Your task to perform on an android device: Go to location settings Image 0: 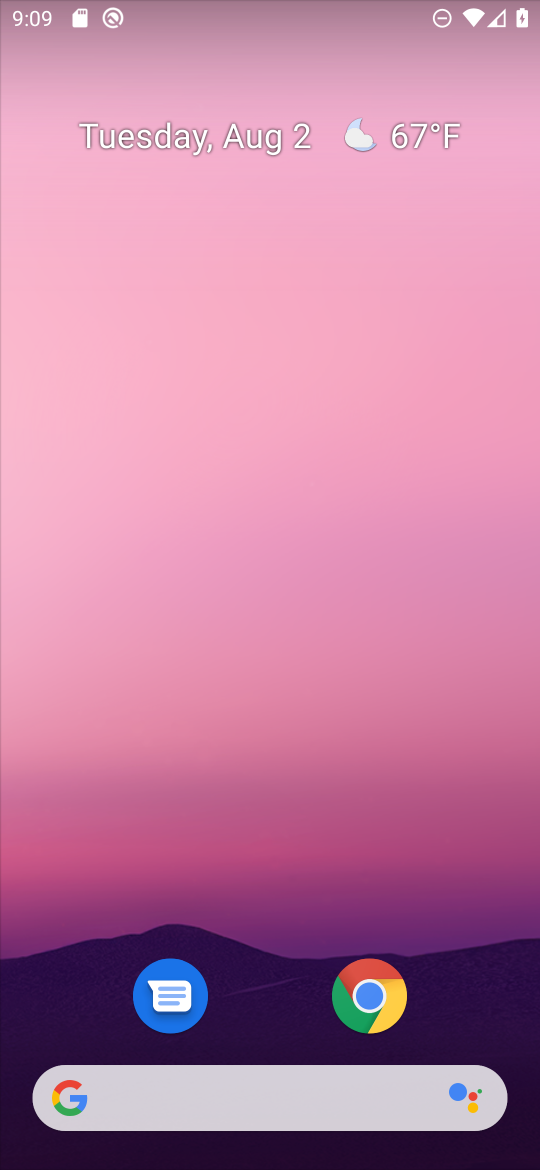
Step 0: press home button
Your task to perform on an android device: Go to location settings Image 1: 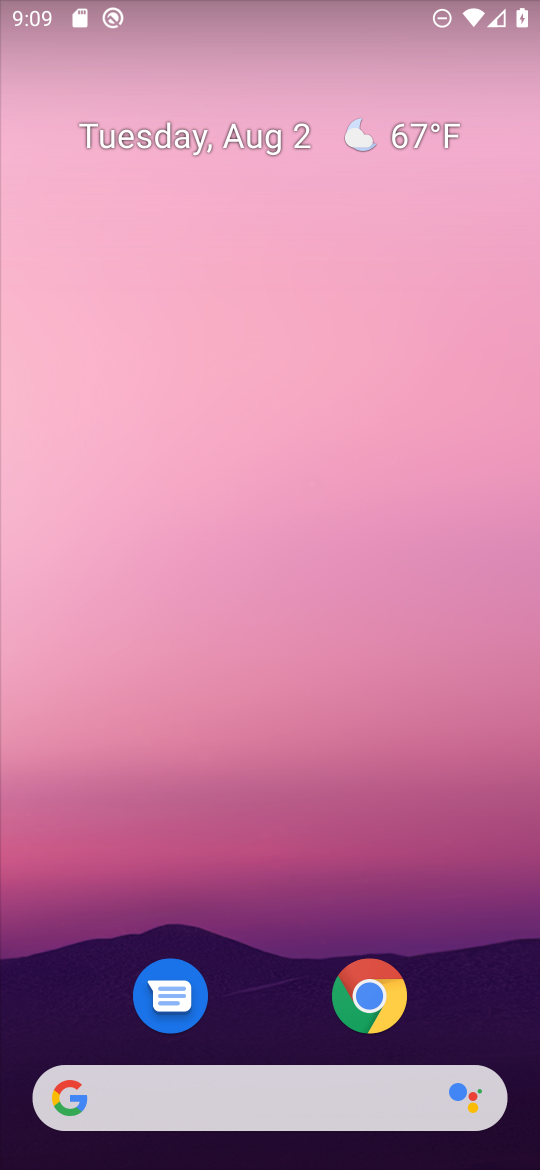
Step 1: drag from (263, 969) to (251, 111)
Your task to perform on an android device: Go to location settings Image 2: 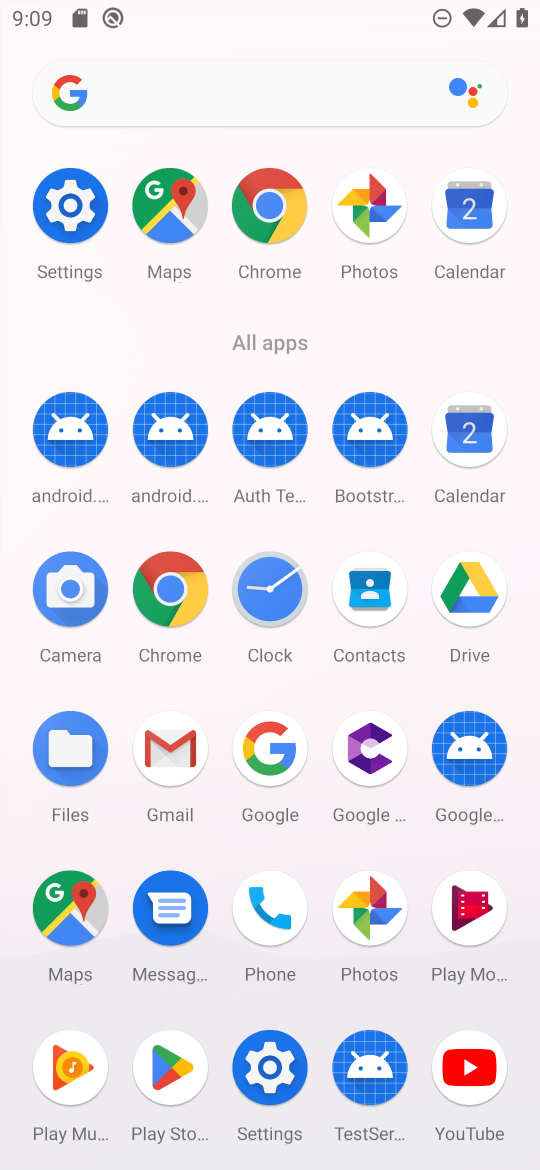
Step 2: click (164, 582)
Your task to perform on an android device: Go to location settings Image 3: 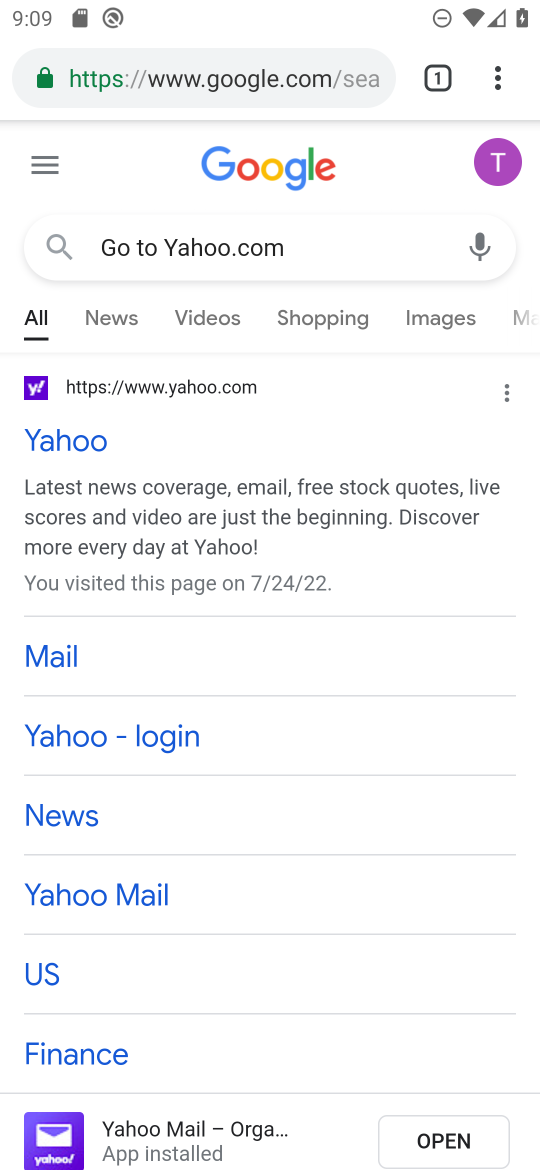
Step 3: press home button
Your task to perform on an android device: Go to location settings Image 4: 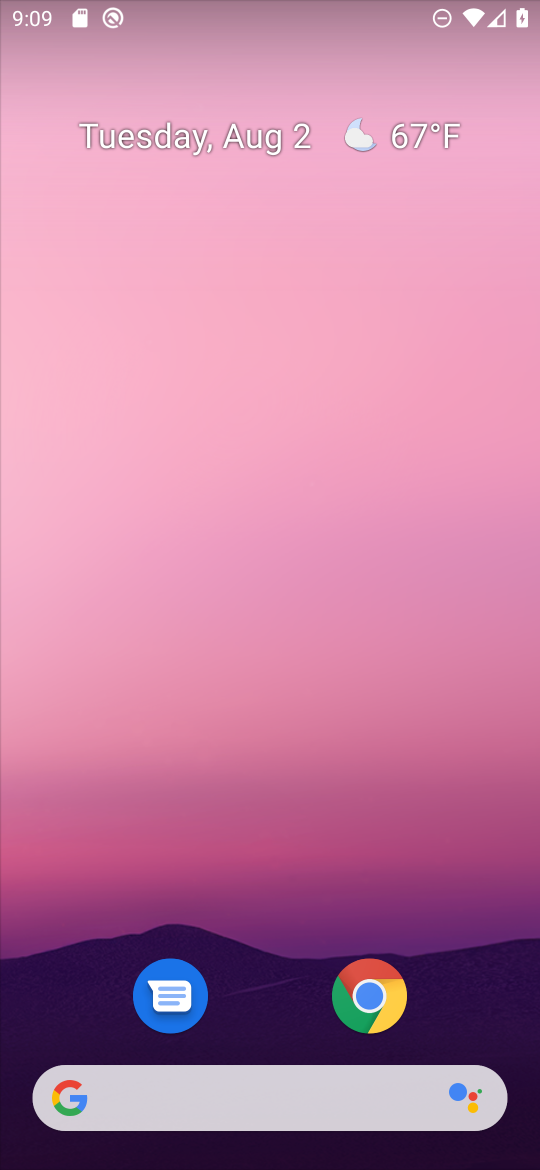
Step 4: drag from (278, 994) to (304, 93)
Your task to perform on an android device: Go to location settings Image 5: 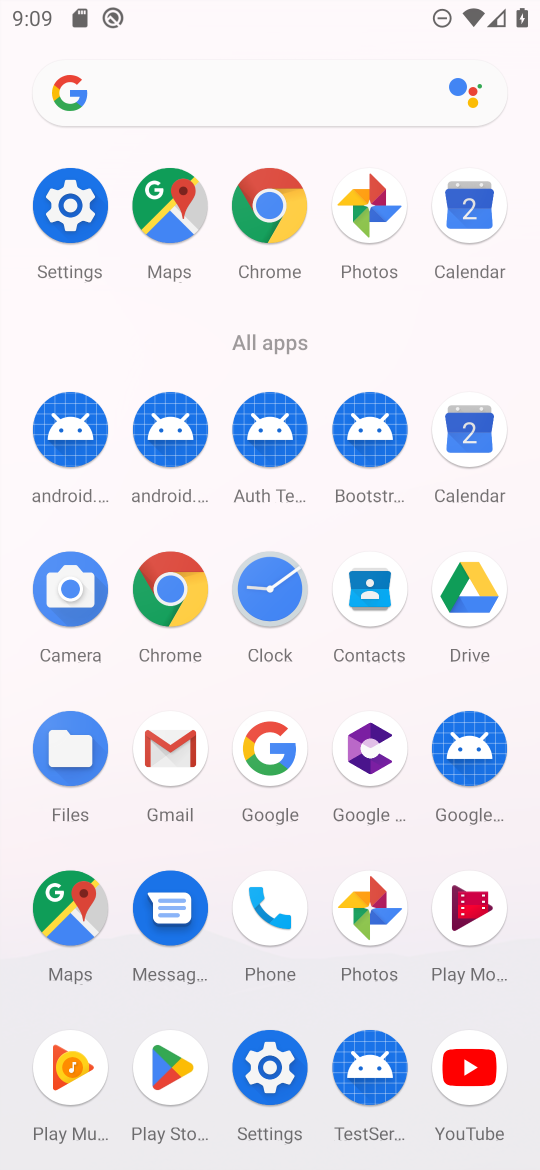
Step 5: click (74, 197)
Your task to perform on an android device: Go to location settings Image 6: 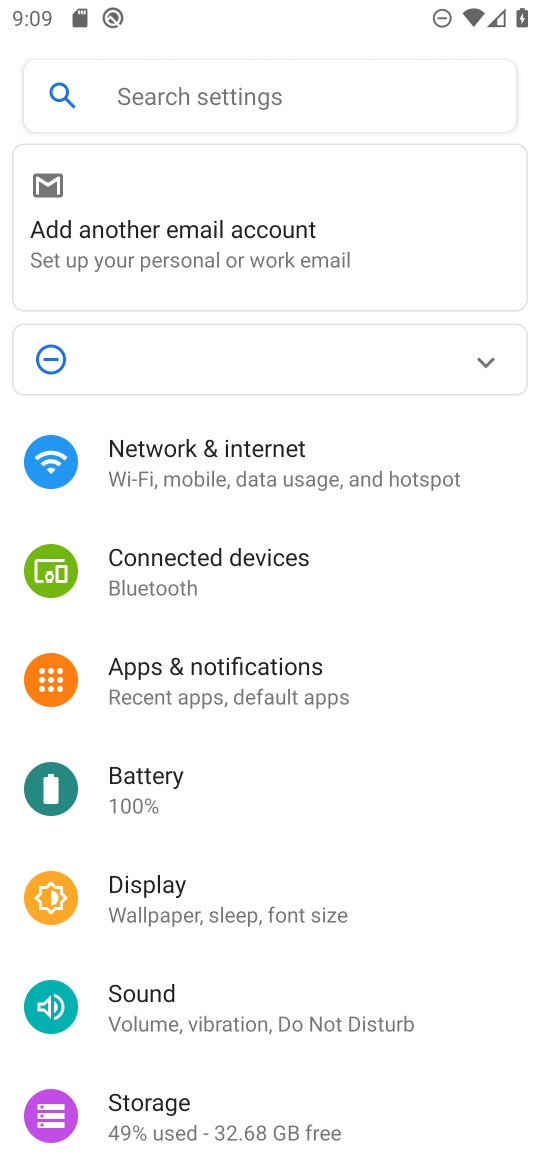
Step 6: drag from (333, 966) to (327, 301)
Your task to perform on an android device: Go to location settings Image 7: 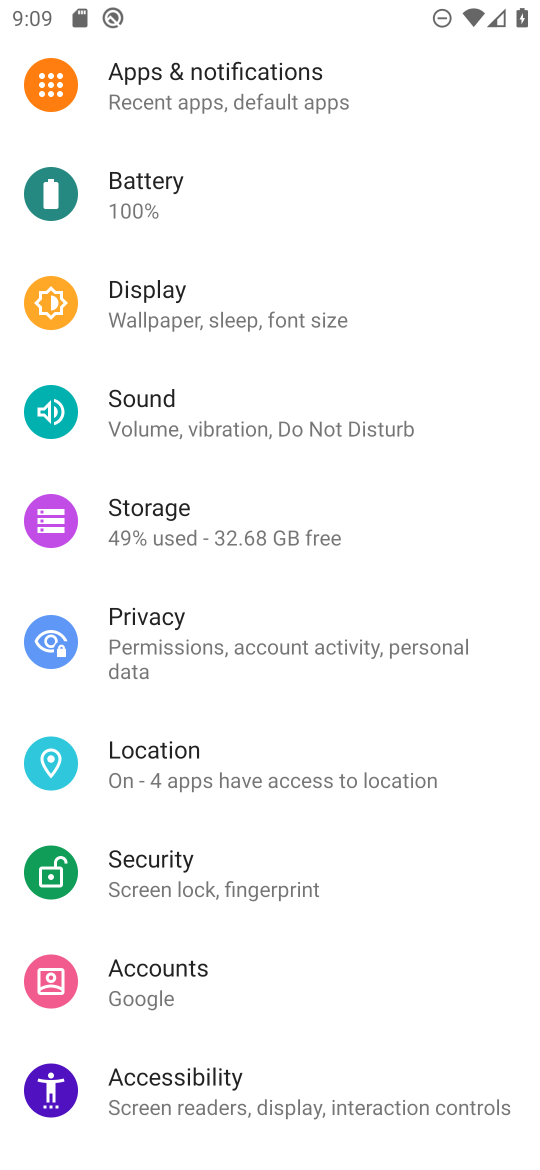
Step 7: click (196, 746)
Your task to perform on an android device: Go to location settings Image 8: 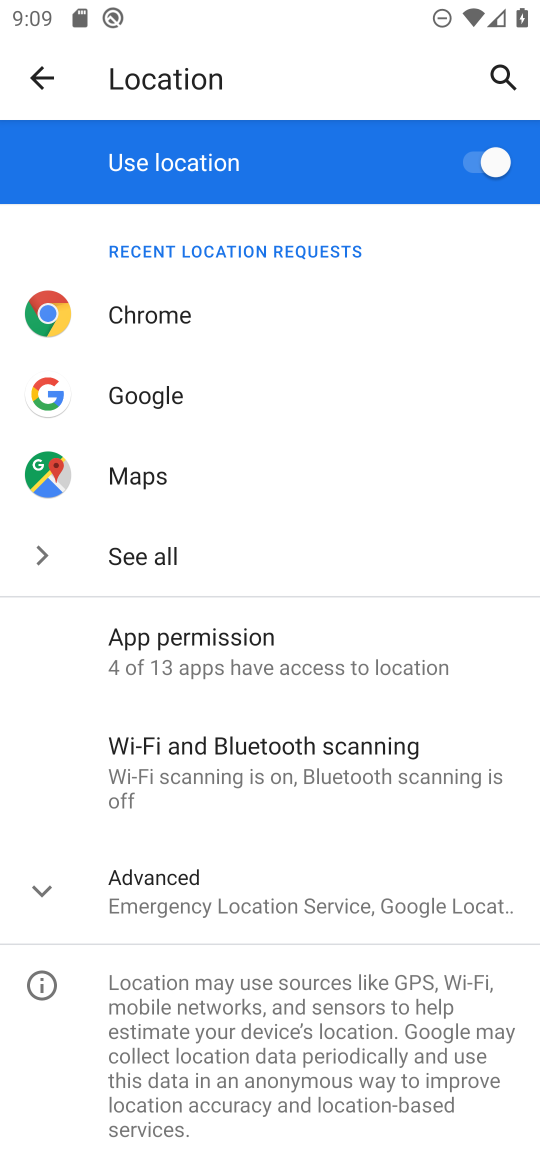
Step 8: task complete